Your task to perform on an android device: change the upload size in google photos Image 0: 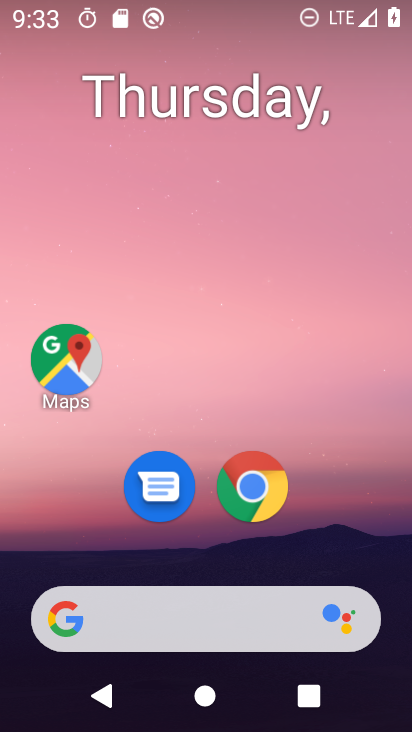
Step 0: drag from (167, 551) to (248, 21)
Your task to perform on an android device: change the upload size in google photos Image 1: 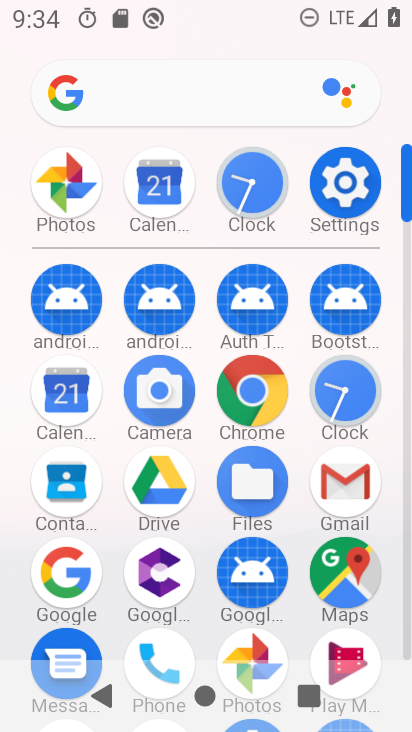
Step 1: click (249, 637)
Your task to perform on an android device: change the upload size in google photos Image 2: 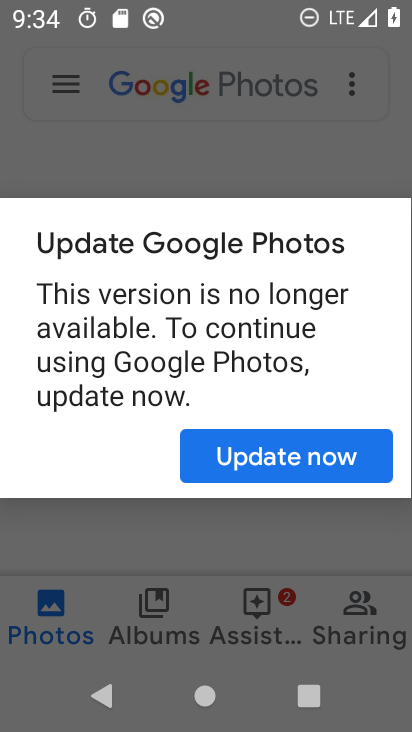
Step 2: click (251, 444)
Your task to perform on an android device: change the upload size in google photos Image 3: 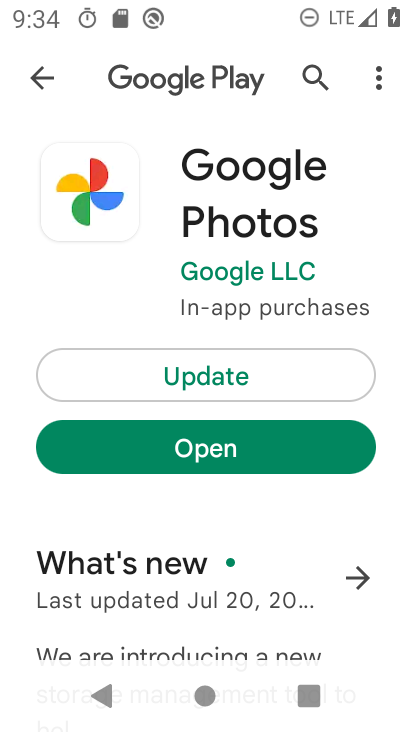
Step 3: click (190, 465)
Your task to perform on an android device: change the upload size in google photos Image 4: 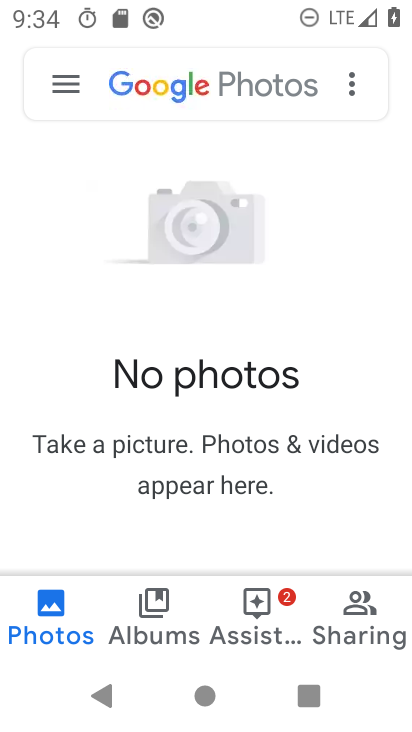
Step 4: click (63, 78)
Your task to perform on an android device: change the upload size in google photos Image 5: 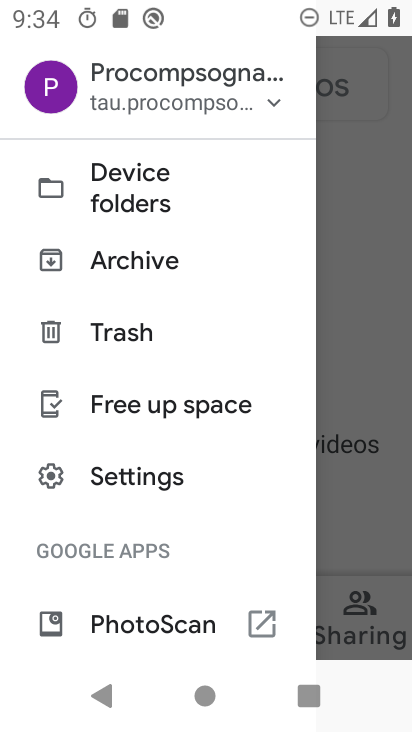
Step 5: click (137, 479)
Your task to perform on an android device: change the upload size in google photos Image 6: 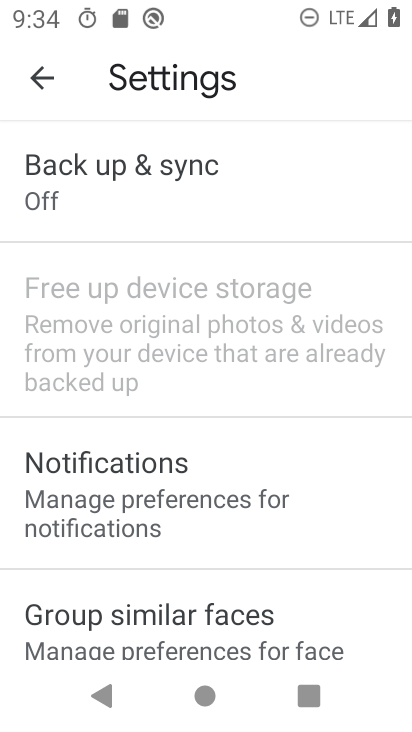
Step 6: drag from (250, 232) to (145, 715)
Your task to perform on an android device: change the upload size in google photos Image 7: 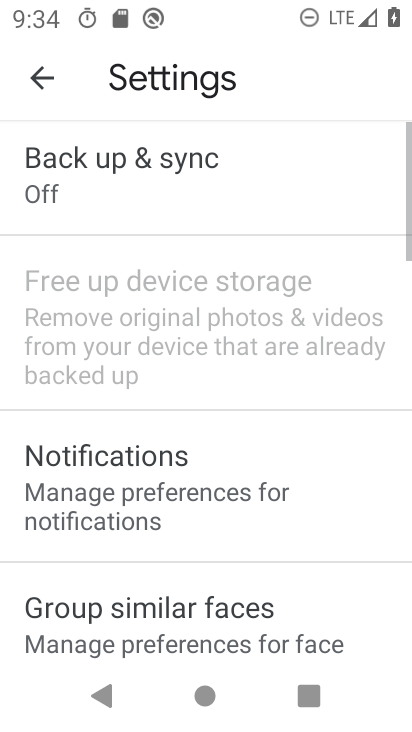
Step 7: click (233, 195)
Your task to perform on an android device: change the upload size in google photos Image 8: 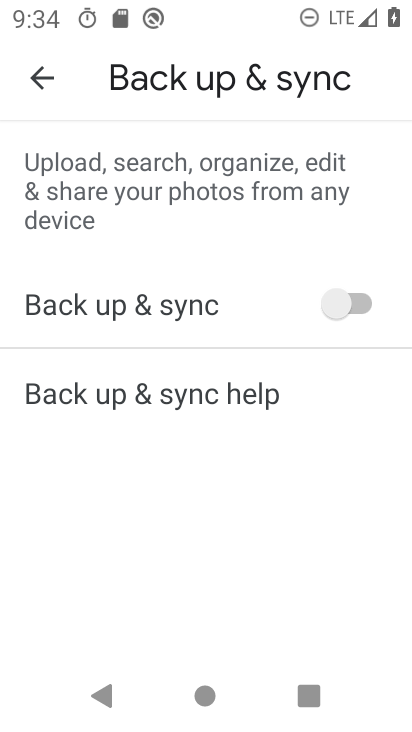
Step 8: task complete